Your task to perform on an android device: Go to Google Image 0: 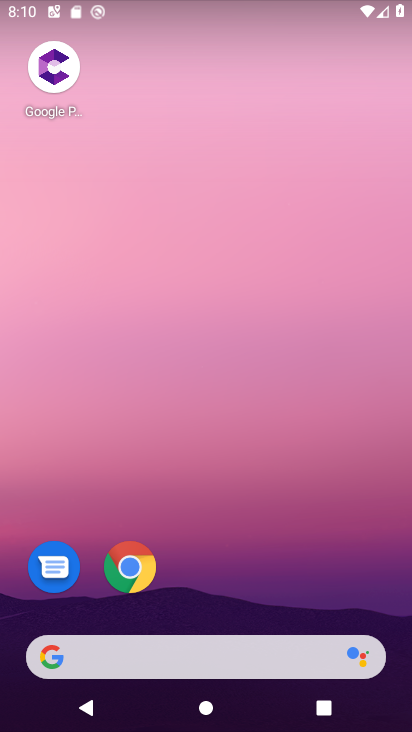
Step 0: drag from (288, 563) to (219, 35)
Your task to perform on an android device: Go to Google Image 1: 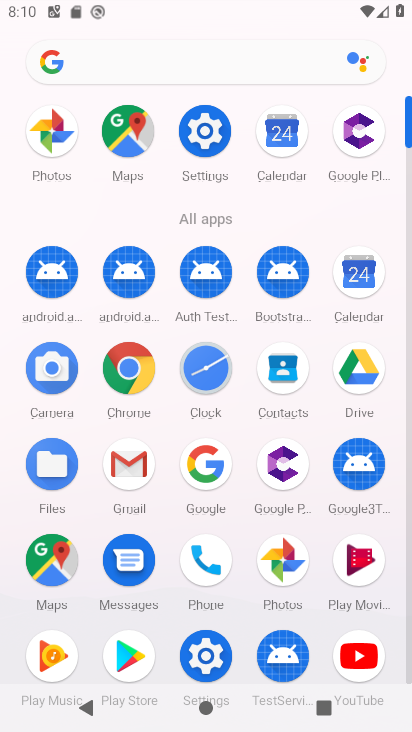
Step 1: click (210, 474)
Your task to perform on an android device: Go to Google Image 2: 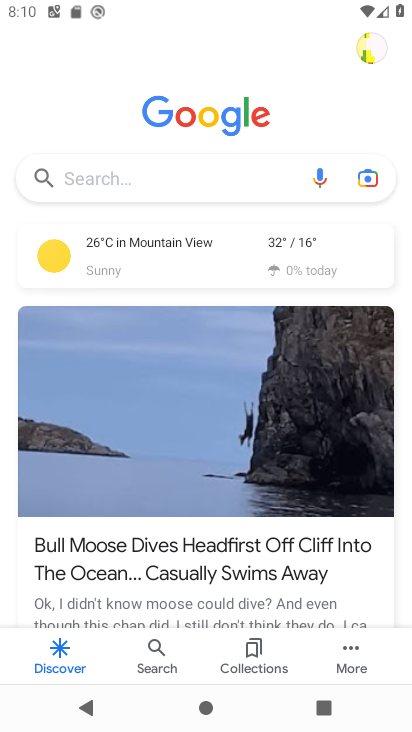
Step 2: task complete